Your task to perform on an android device: see tabs open on other devices in the chrome app Image 0: 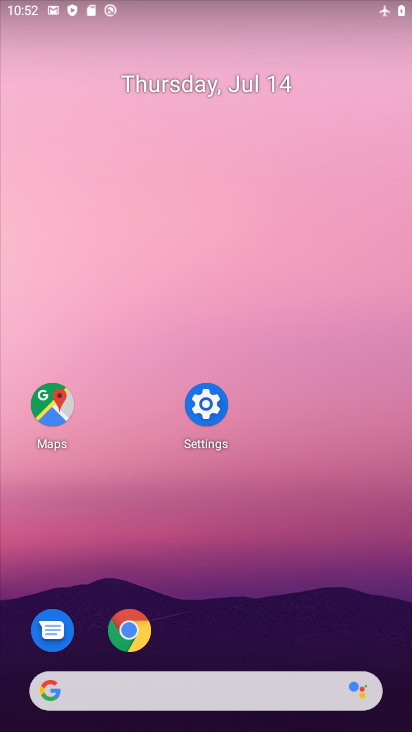
Step 0: click (127, 631)
Your task to perform on an android device: see tabs open on other devices in the chrome app Image 1: 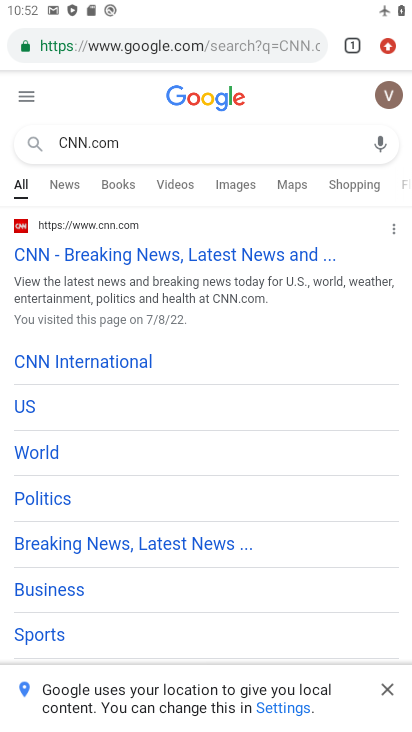
Step 1: click (387, 41)
Your task to perform on an android device: see tabs open on other devices in the chrome app Image 2: 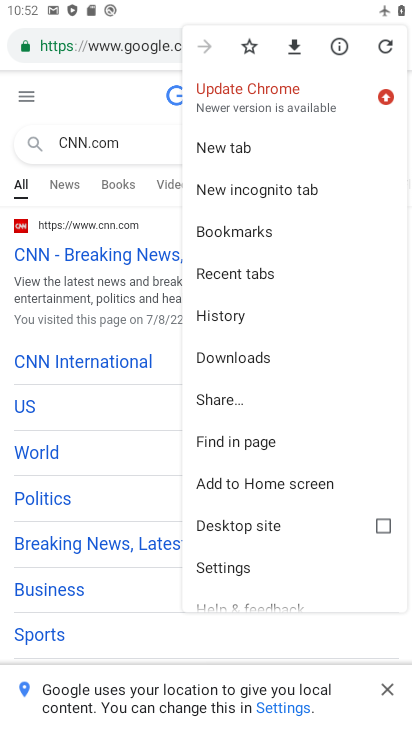
Step 2: click (387, 91)
Your task to perform on an android device: see tabs open on other devices in the chrome app Image 3: 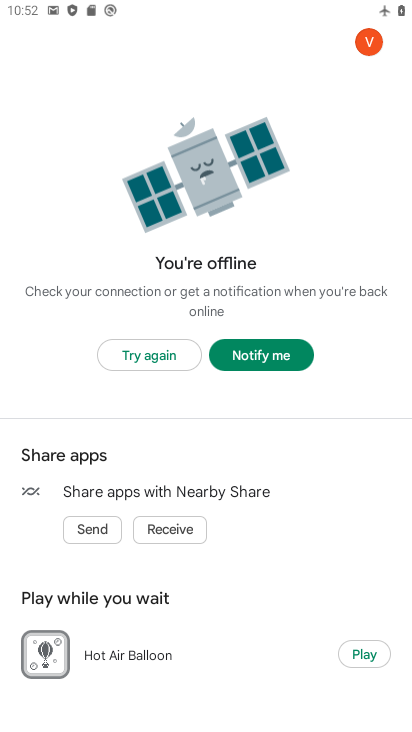
Step 3: task complete